Your task to perform on an android device: Do I have any events this weekend? Image 0: 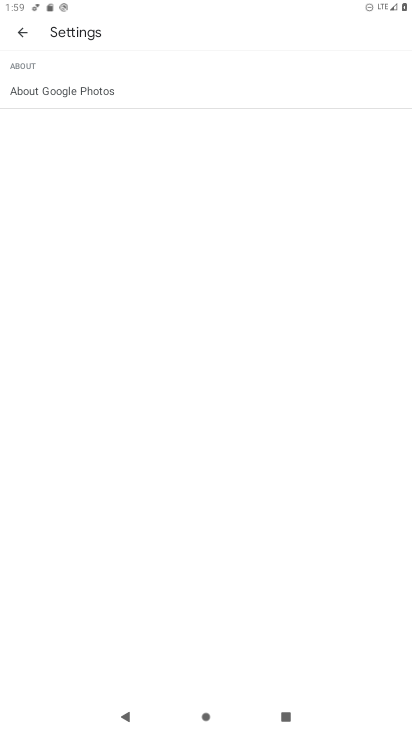
Step 0: press home button
Your task to perform on an android device: Do I have any events this weekend? Image 1: 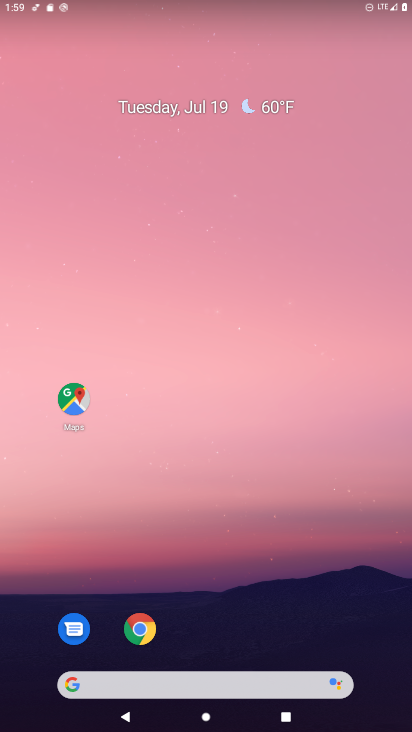
Step 1: drag from (377, 645) to (334, 219)
Your task to perform on an android device: Do I have any events this weekend? Image 2: 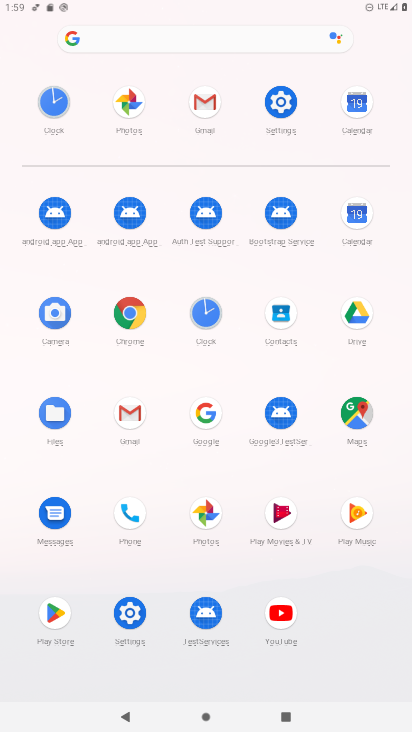
Step 2: click (358, 212)
Your task to perform on an android device: Do I have any events this weekend? Image 3: 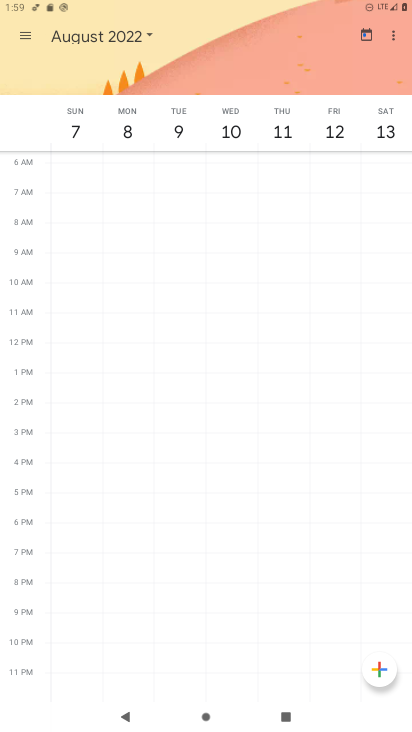
Step 3: click (26, 35)
Your task to perform on an android device: Do I have any events this weekend? Image 4: 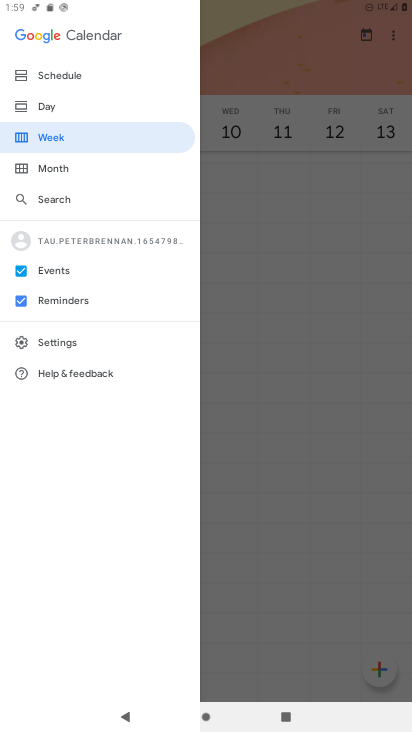
Step 4: click (73, 139)
Your task to perform on an android device: Do I have any events this weekend? Image 5: 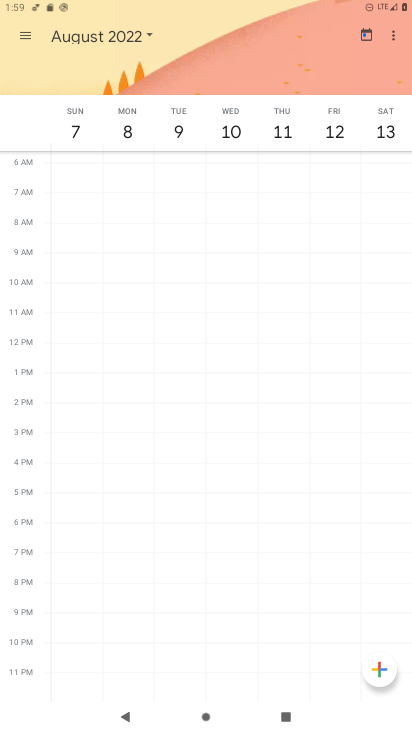
Step 5: click (149, 33)
Your task to perform on an android device: Do I have any events this weekend? Image 6: 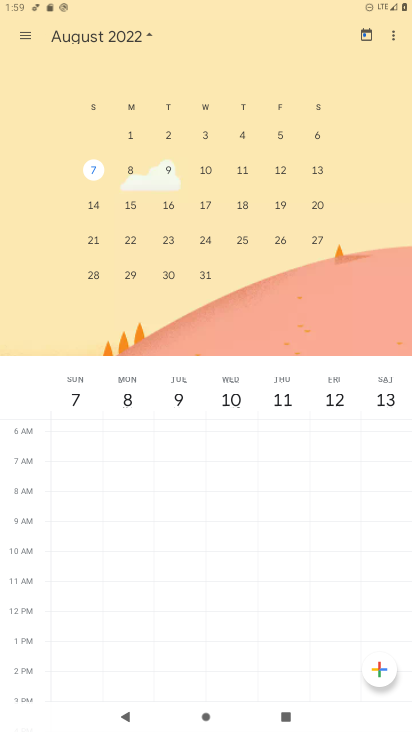
Step 6: drag from (90, 242) to (336, 206)
Your task to perform on an android device: Do I have any events this weekend? Image 7: 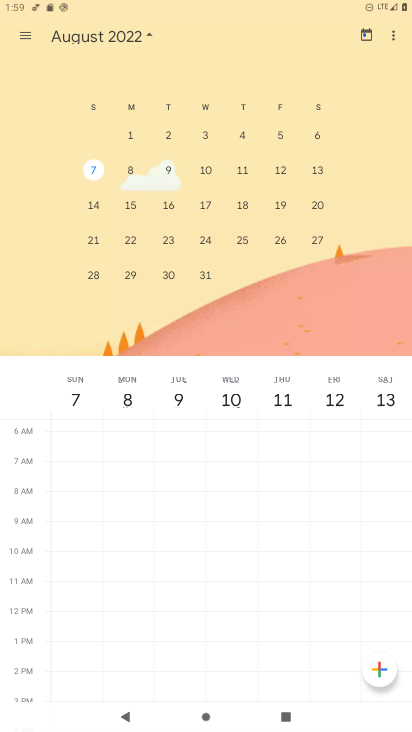
Step 7: drag from (91, 235) to (394, 219)
Your task to perform on an android device: Do I have any events this weekend? Image 8: 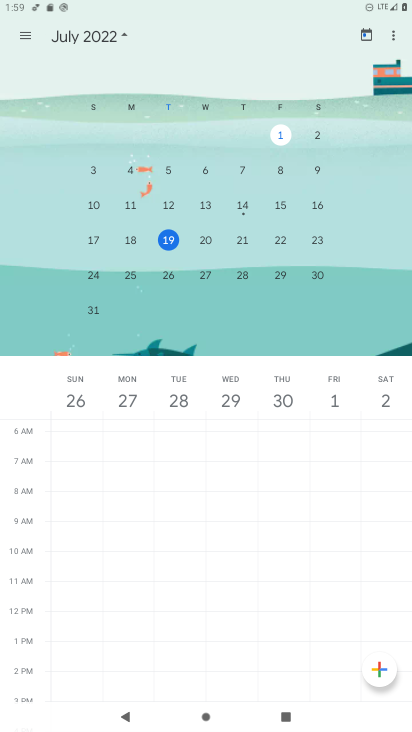
Step 8: click (164, 233)
Your task to perform on an android device: Do I have any events this weekend? Image 9: 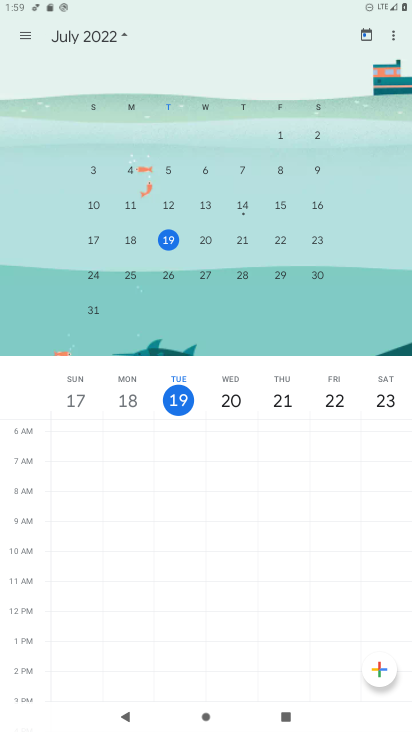
Step 9: task complete